Your task to perform on an android device: open a new tab in the chrome app Image 0: 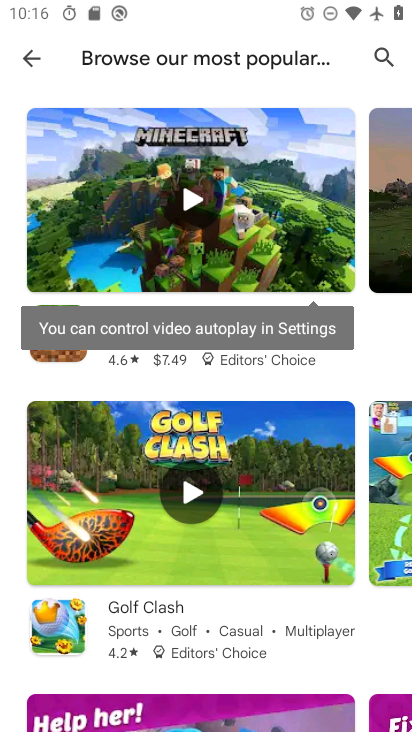
Step 0: press home button
Your task to perform on an android device: open a new tab in the chrome app Image 1: 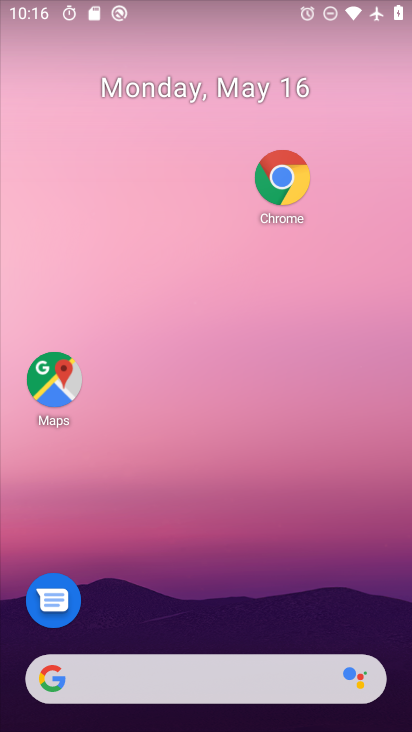
Step 1: click (285, 196)
Your task to perform on an android device: open a new tab in the chrome app Image 2: 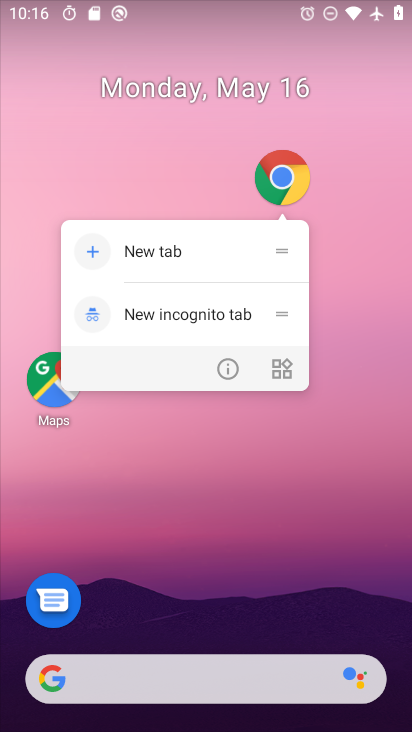
Step 2: click (298, 176)
Your task to perform on an android device: open a new tab in the chrome app Image 3: 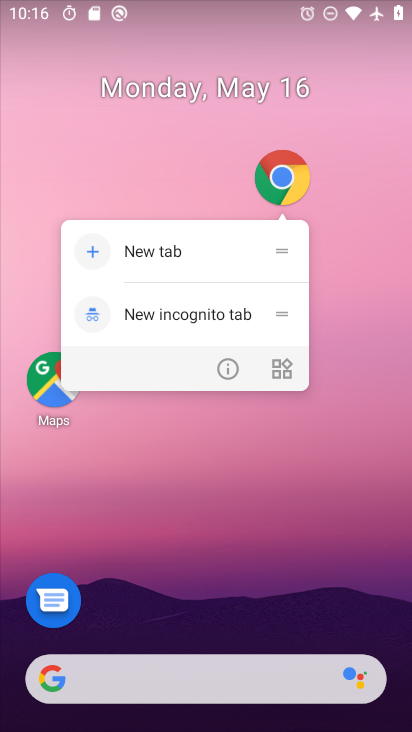
Step 3: click (288, 183)
Your task to perform on an android device: open a new tab in the chrome app Image 4: 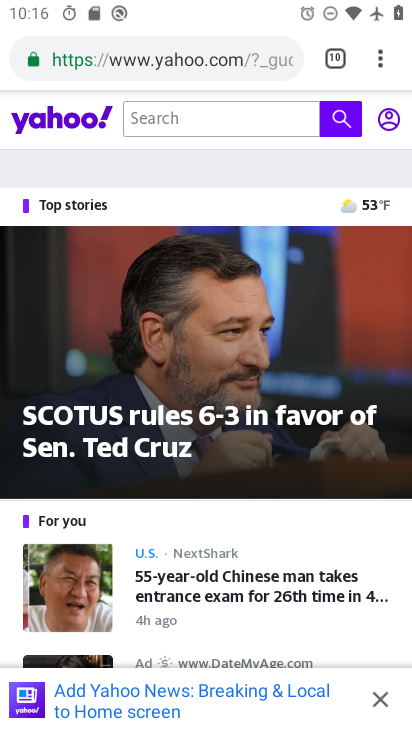
Step 4: task complete